Your task to perform on an android device: Search for Mexican restaurants on Maps Image 0: 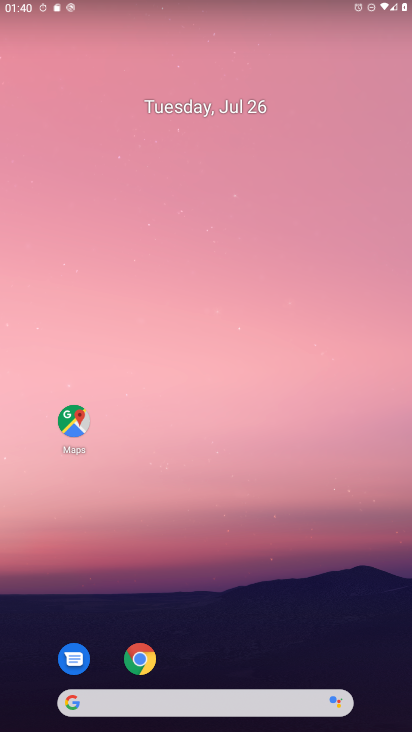
Step 0: press home button
Your task to perform on an android device: Search for Mexican restaurants on Maps Image 1: 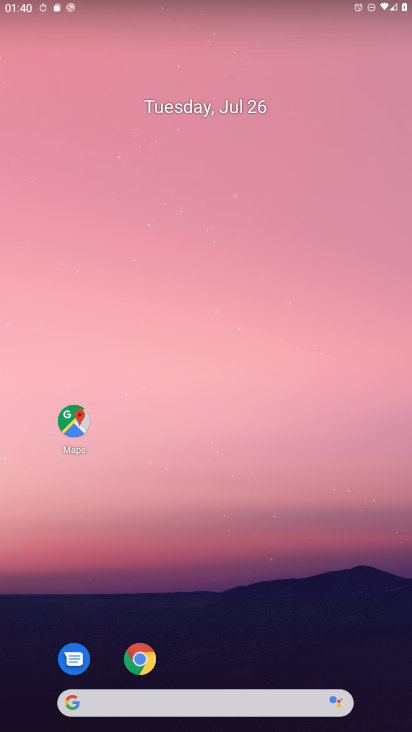
Step 1: click (62, 427)
Your task to perform on an android device: Search for Mexican restaurants on Maps Image 2: 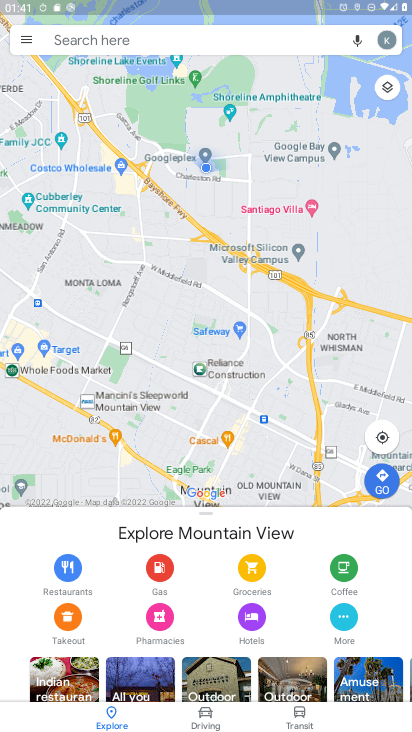
Step 2: click (99, 37)
Your task to perform on an android device: Search for Mexican restaurants on Maps Image 3: 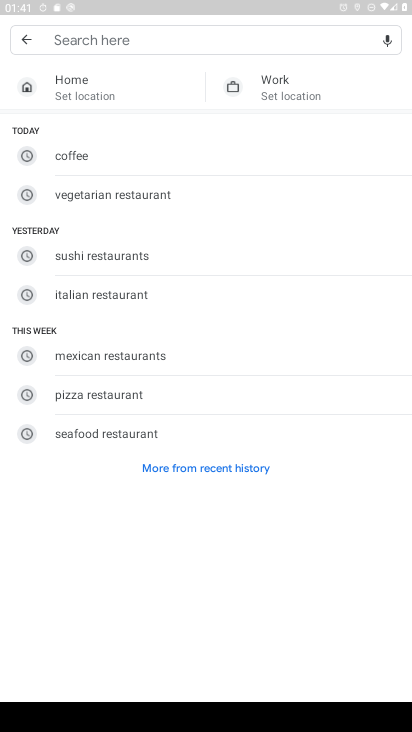
Step 3: type " Mexican restaurants"
Your task to perform on an android device: Search for Mexican restaurants on Maps Image 4: 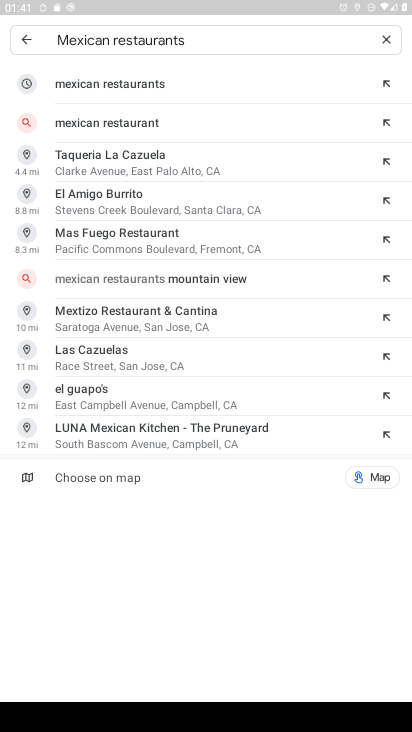
Step 4: click (142, 74)
Your task to perform on an android device: Search for Mexican restaurants on Maps Image 5: 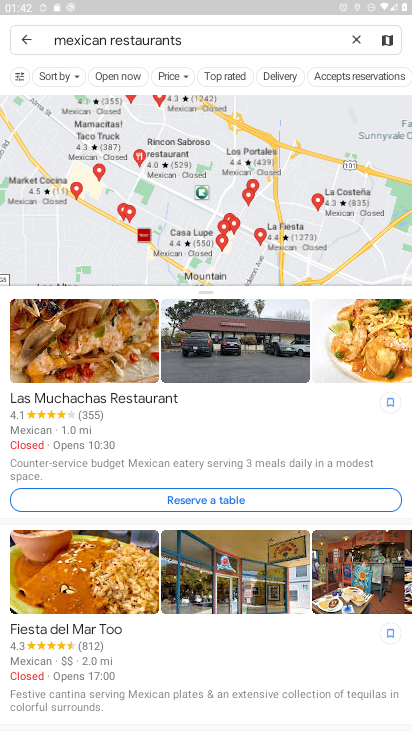
Step 5: task complete